Your task to perform on an android device: How much does a 3 bedroom apartment rent for in Chicago? Image 0: 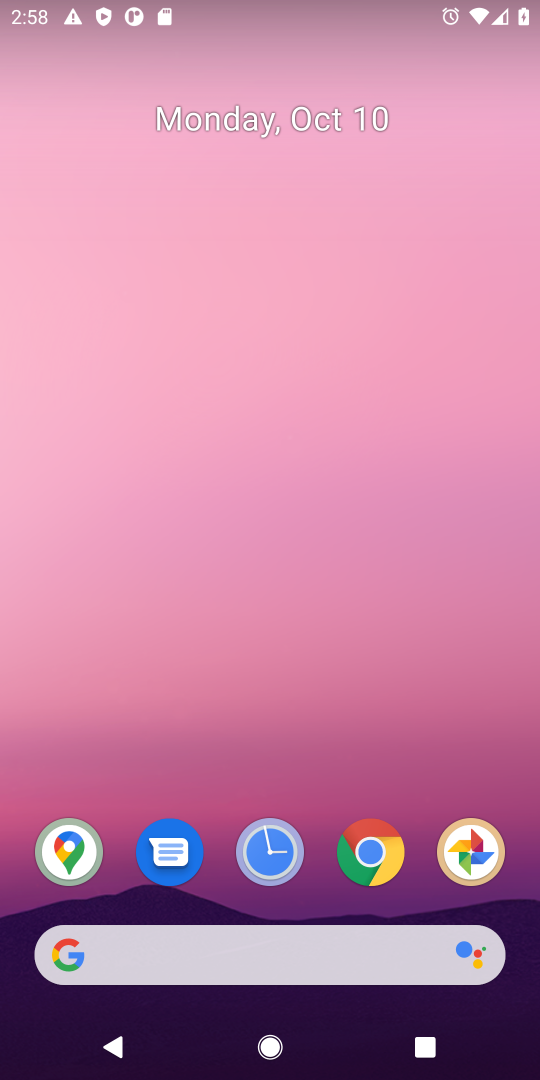
Step 0: click (265, 942)
Your task to perform on an android device: How much does a 3 bedroom apartment rent for in Chicago? Image 1: 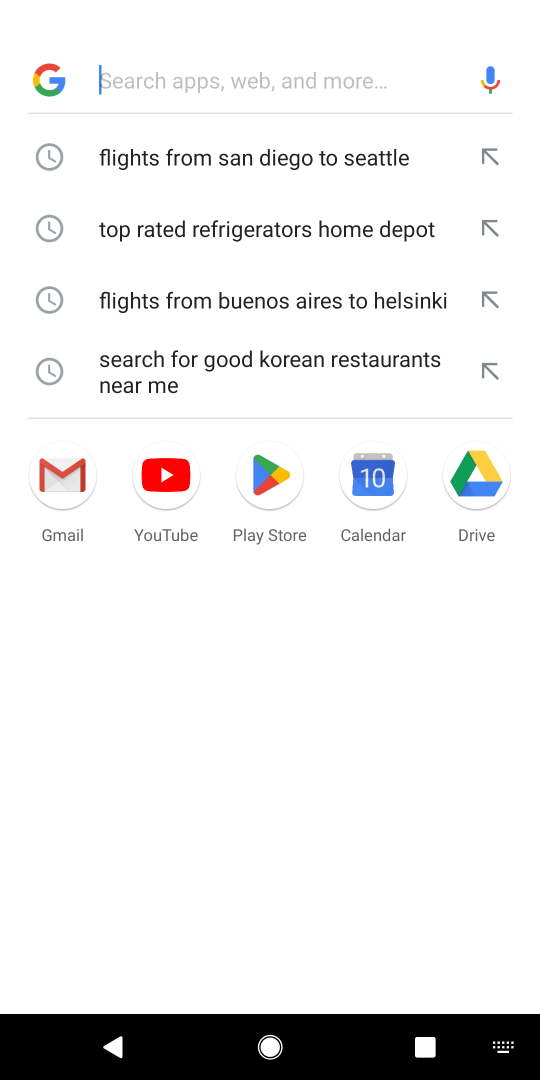
Step 1: type "3 bedroom apartment rent for in Chicago"
Your task to perform on an android device: How much does a 3 bedroom apartment rent for in Chicago? Image 2: 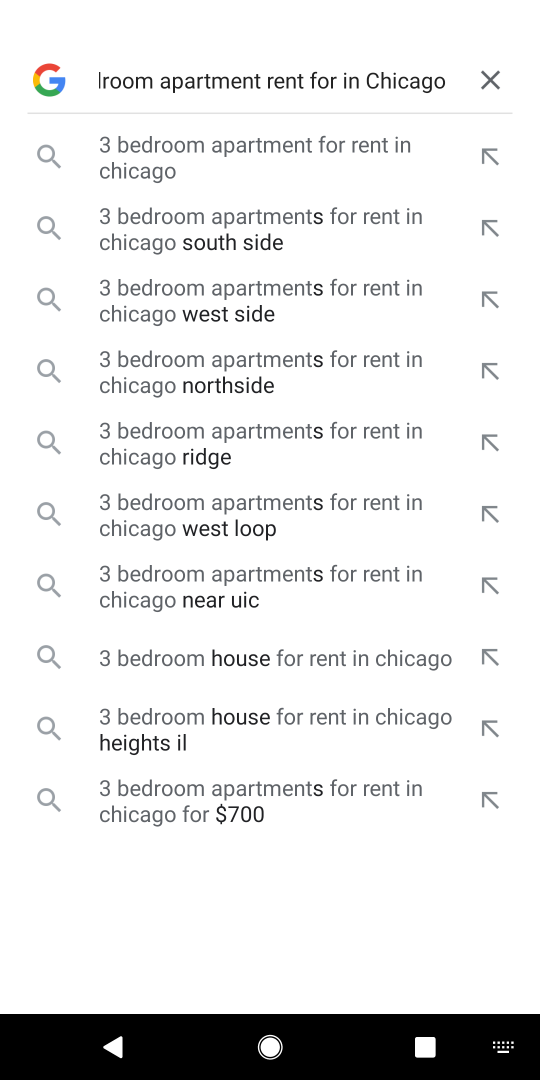
Step 2: type ""
Your task to perform on an android device: How much does a 3 bedroom apartment rent for in Chicago? Image 3: 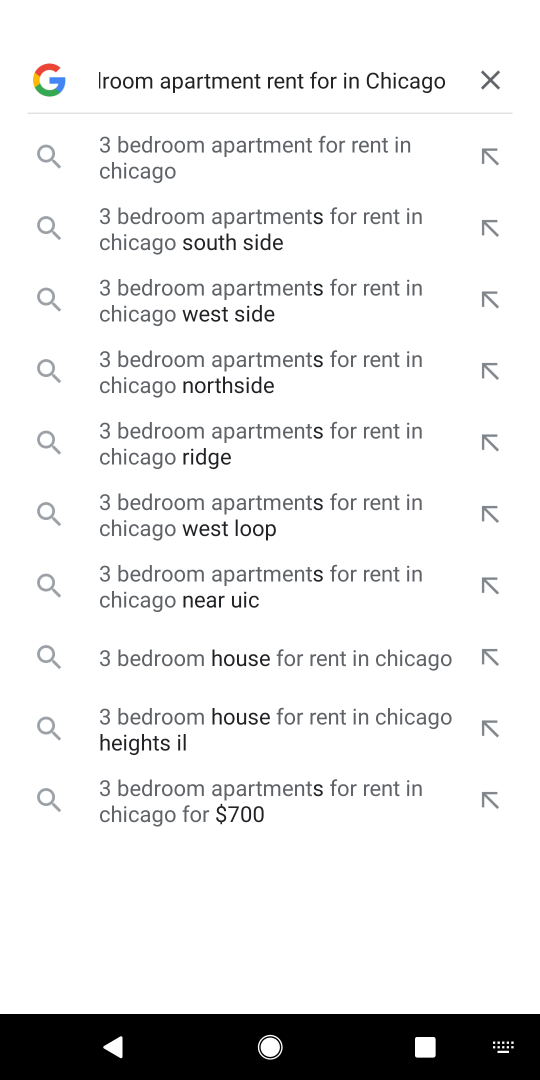
Step 3: click (176, 64)
Your task to perform on an android device: How much does a 3 bedroom apartment rent for in Chicago? Image 4: 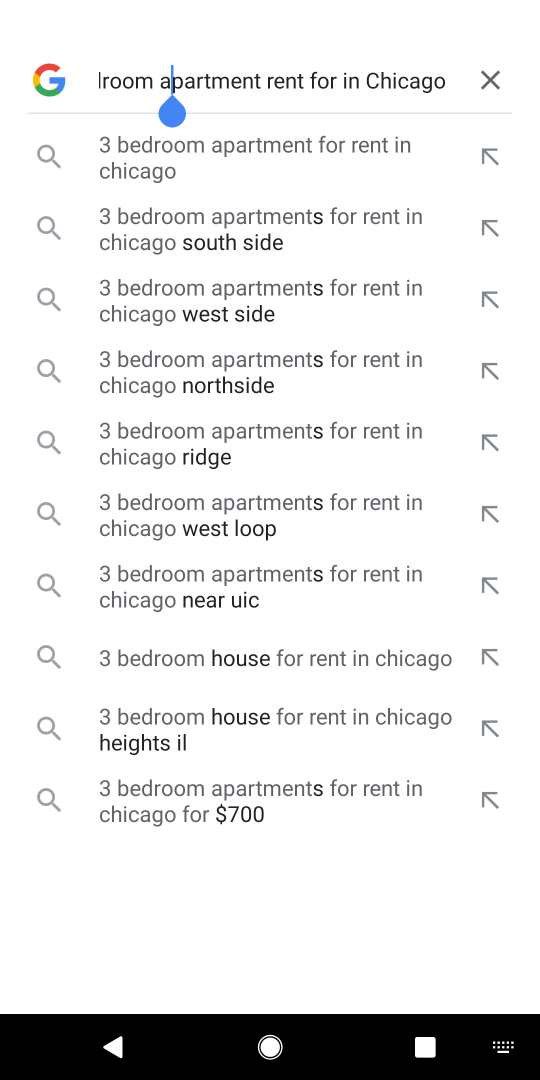
Step 4: click (239, 152)
Your task to perform on an android device: How much does a 3 bedroom apartment rent for in Chicago? Image 5: 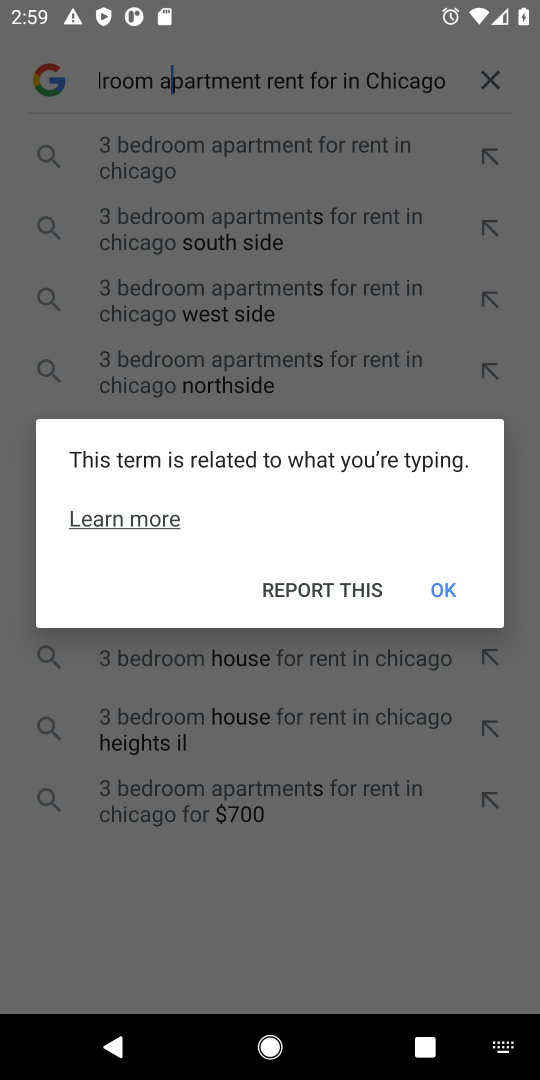
Step 5: click (432, 596)
Your task to perform on an android device: How much does a 3 bedroom apartment rent for in Chicago? Image 6: 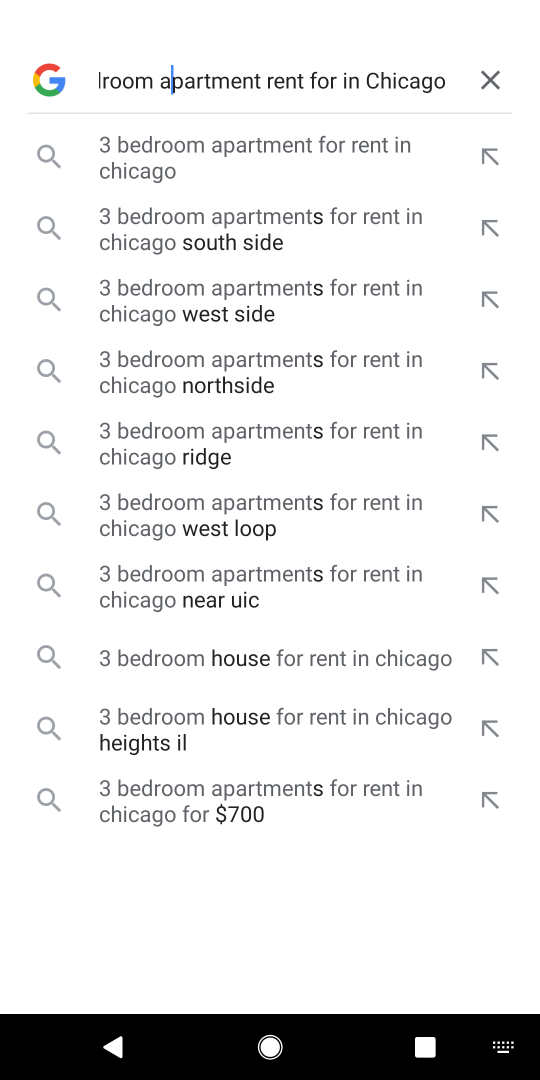
Step 6: click (191, 160)
Your task to perform on an android device: How much does a 3 bedroom apartment rent for in Chicago? Image 7: 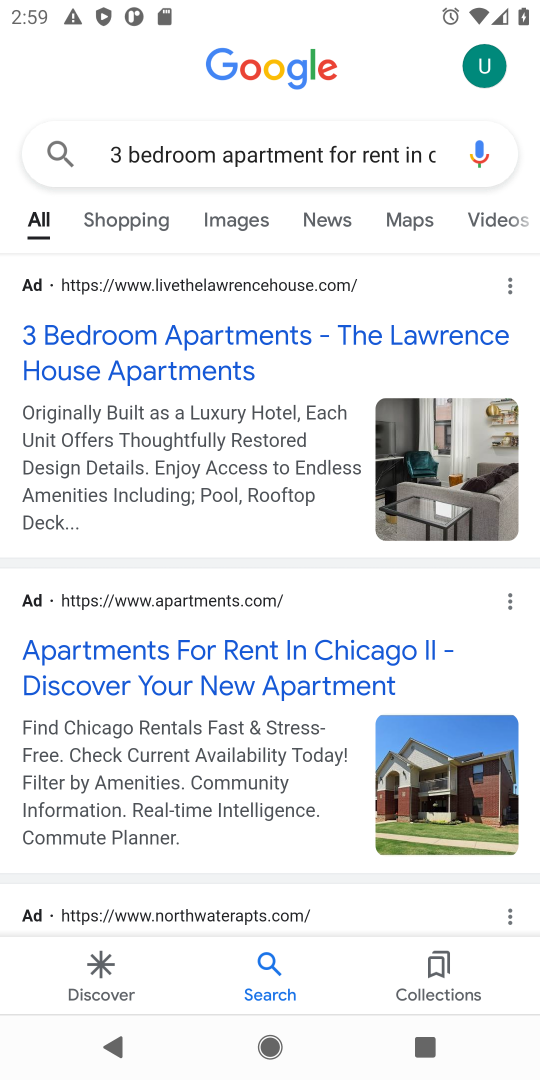
Step 7: drag from (253, 582) to (262, 329)
Your task to perform on an android device: How much does a 3 bedroom apartment rent for in Chicago? Image 8: 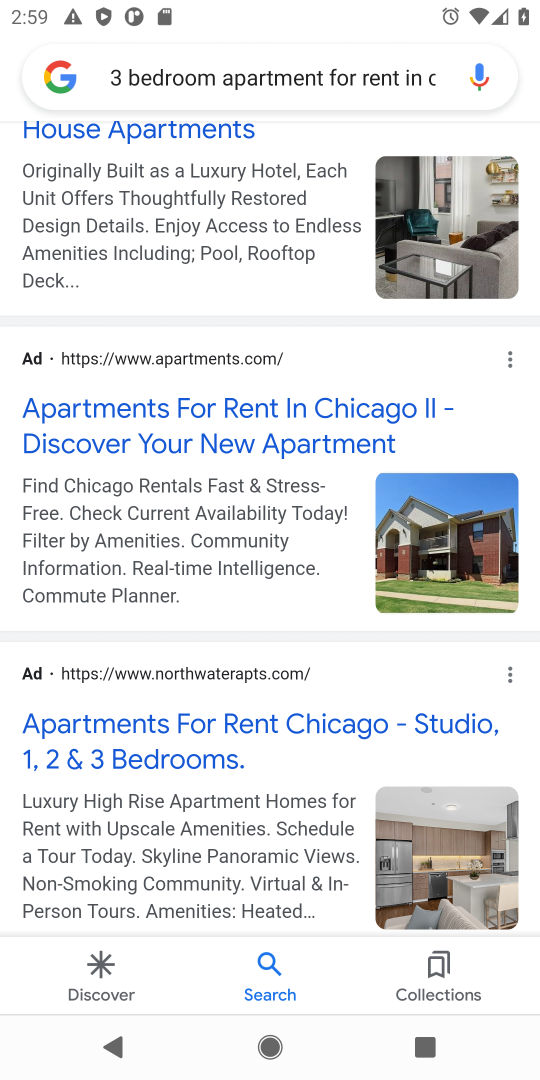
Step 8: drag from (233, 749) to (262, 410)
Your task to perform on an android device: How much does a 3 bedroom apartment rent for in Chicago? Image 9: 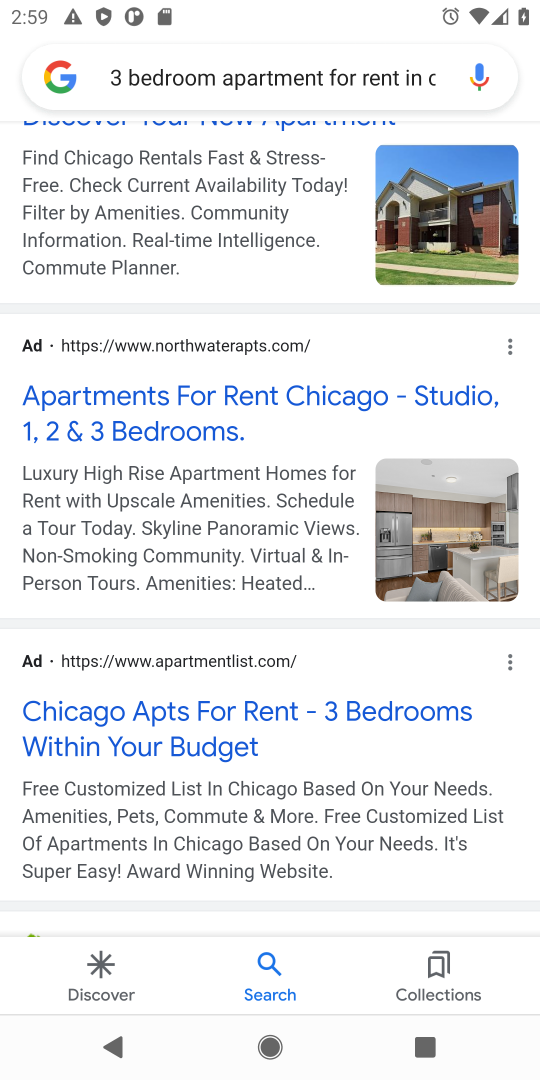
Step 9: drag from (235, 732) to (225, 415)
Your task to perform on an android device: How much does a 3 bedroom apartment rent for in Chicago? Image 10: 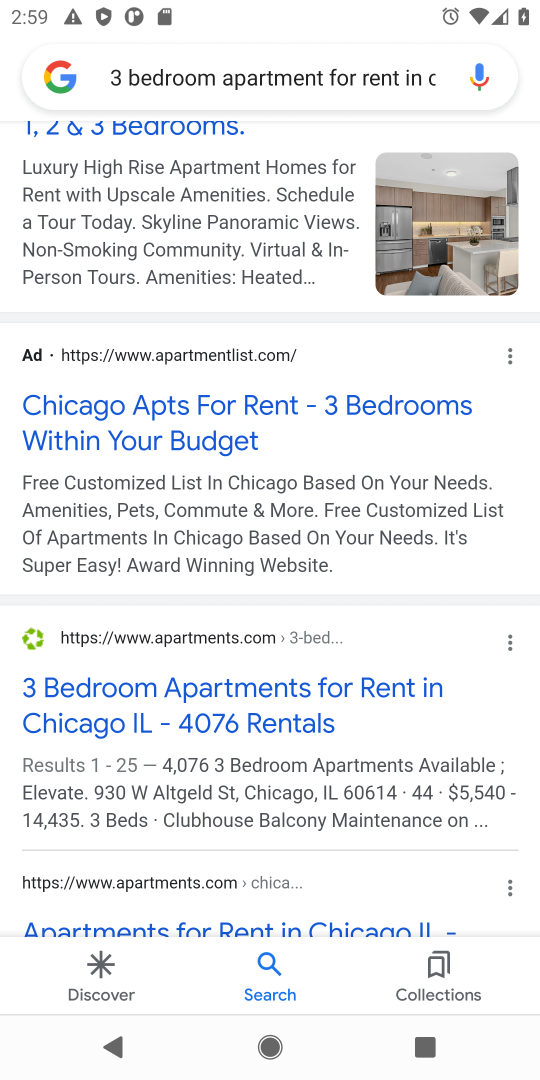
Step 10: drag from (186, 737) to (190, 617)
Your task to perform on an android device: How much does a 3 bedroom apartment rent for in Chicago? Image 11: 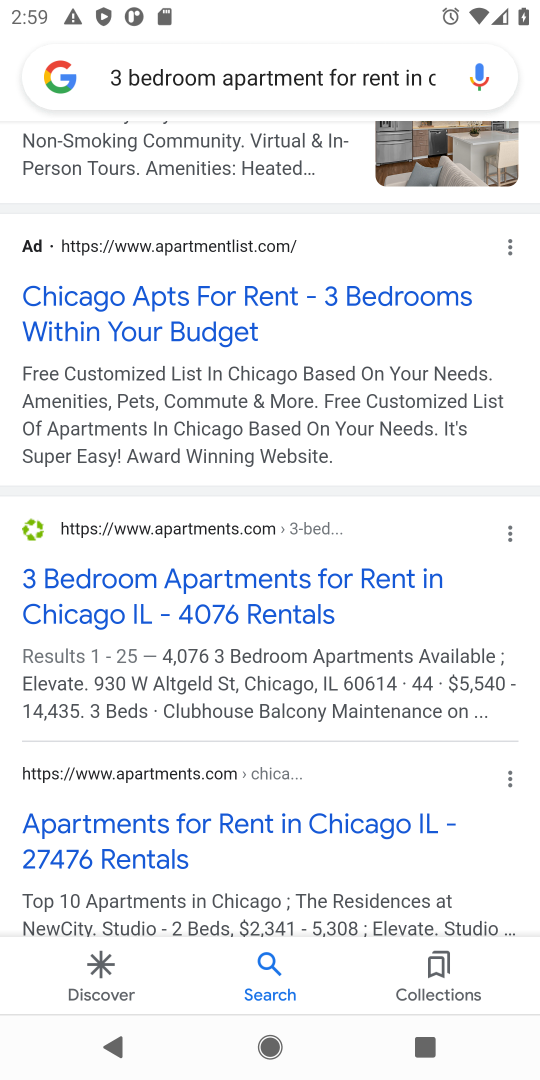
Step 11: click (164, 582)
Your task to perform on an android device: How much does a 3 bedroom apartment rent for in Chicago? Image 12: 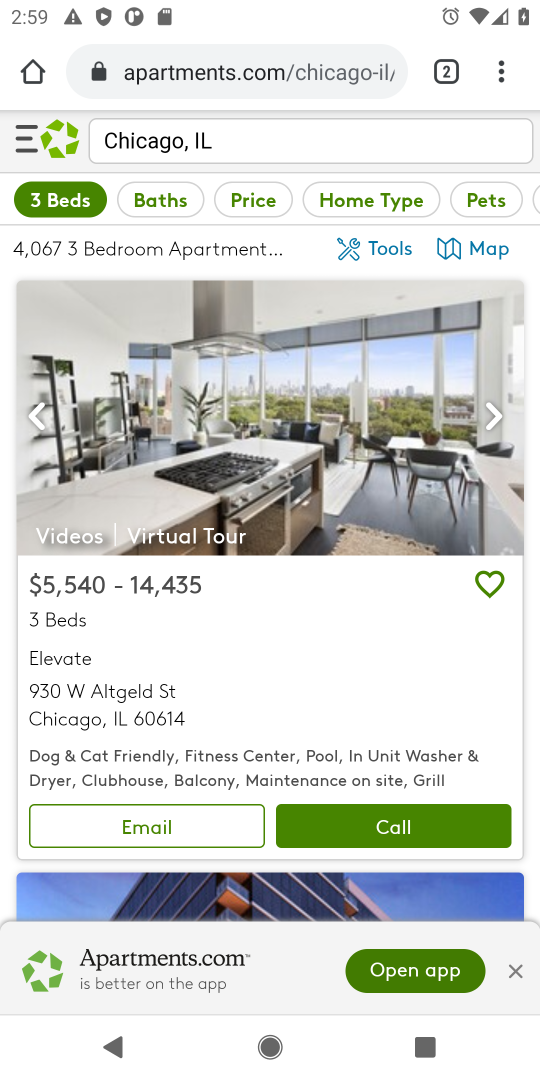
Step 12: task complete